Your task to perform on an android device: delete a single message in the gmail app Image 0: 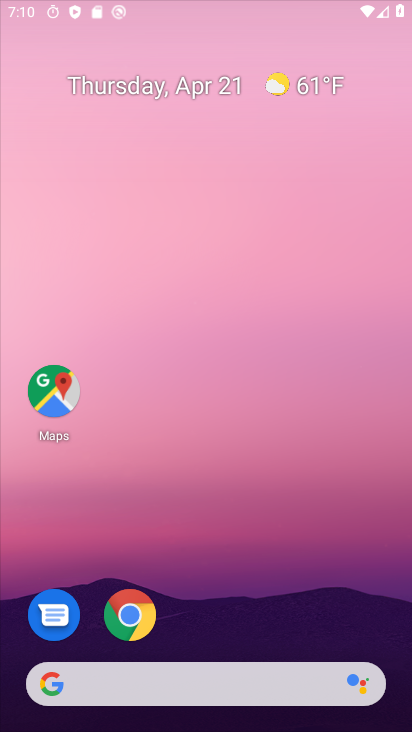
Step 0: drag from (174, 567) to (168, 308)
Your task to perform on an android device: delete a single message in the gmail app Image 1: 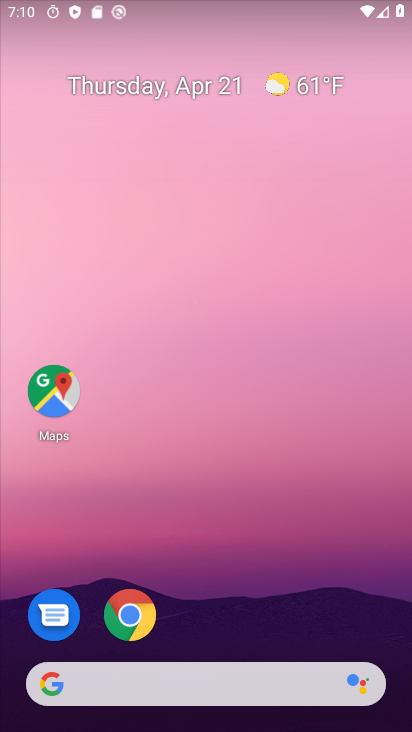
Step 1: drag from (204, 634) to (313, 182)
Your task to perform on an android device: delete a single message in the gmail app Image 2: 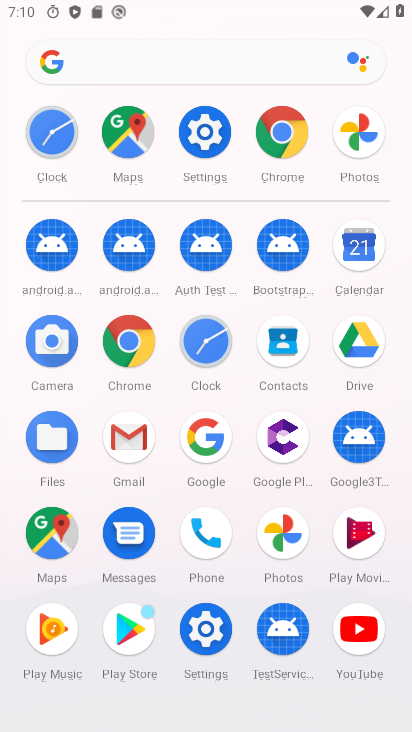
Step 2: click (123, 442)
Your task to perform on an android device: delete a single message in the gmail app Image 3: 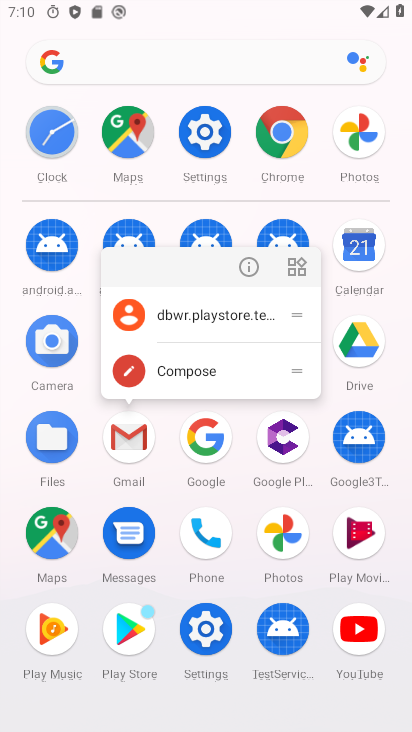
Step 3: click (256, 260)
Your task to perform on an android device: delete a single message in the gmail app Image 4: 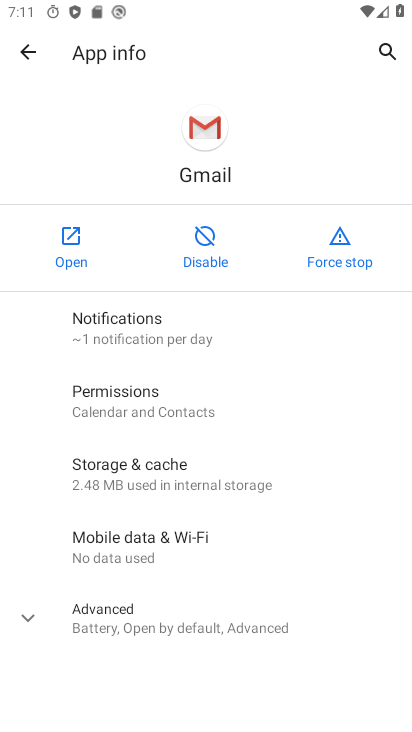
Step 4: click (73, 243)
Your task to perform on an android device: delete a single message in the gmail app Image 5: 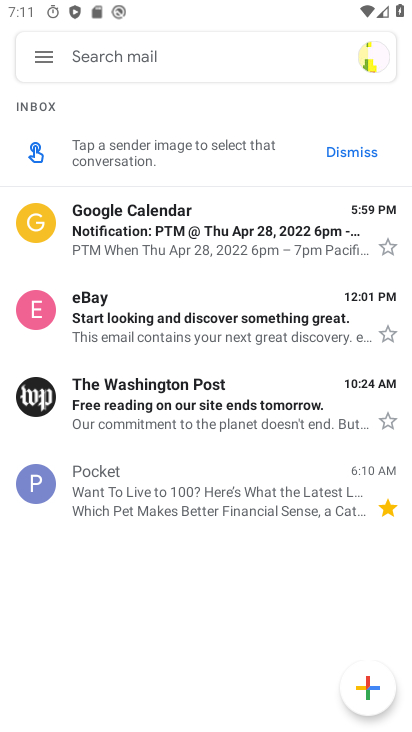
Step 5: click (42, 68)
Your task to perform on an android device: delete a single message in the gmail app Image 6: 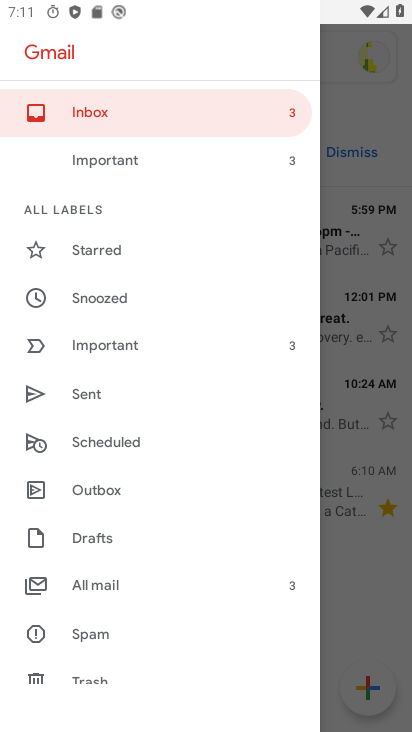
Step 6: drag from (119, 609) to (123, 232)
Your task to perform on an android device: delete a single message in the gmail app Image 7: 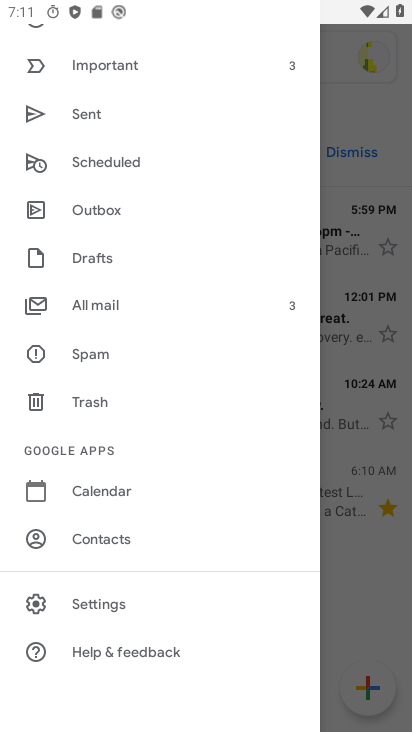
Step 7: click (112, 591)
Your task to perform on an android device: delete a single message in the gmail app Image 8: 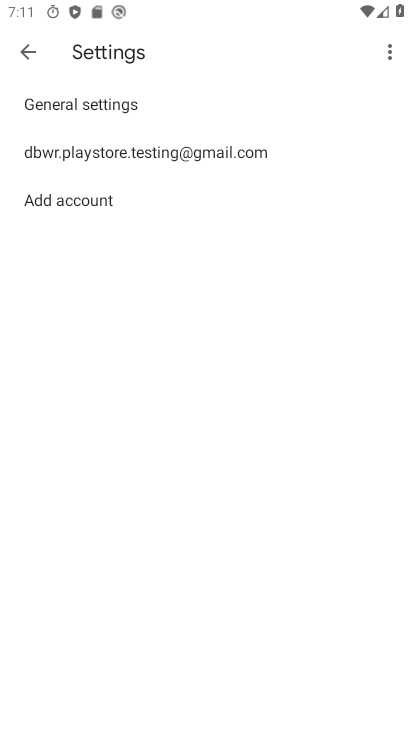
Step 8: click (25, 58)
Your task to perform on an android device: delete a single message in the gmail app Image 9: 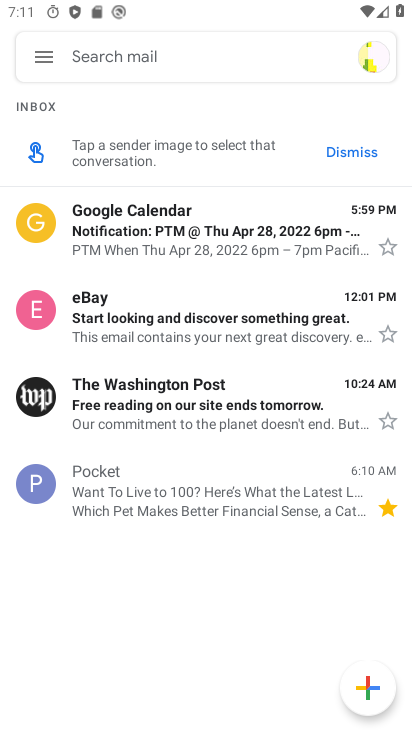
Step 9: click (41, 222)
Your task to perform on an android device: delete a single message in the gmail app Image 10: 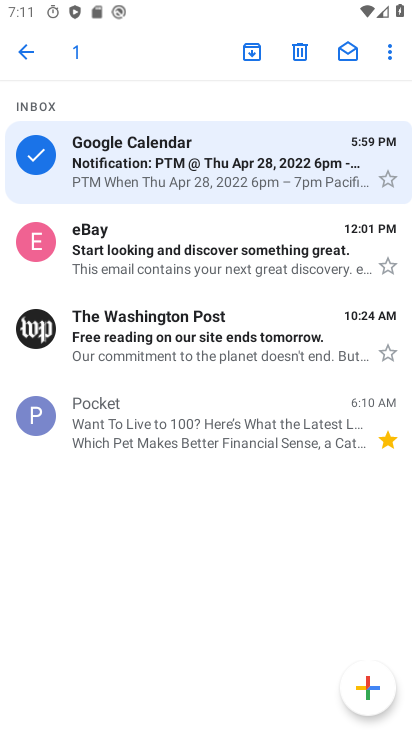
Step 10: click (301, 42)
Your task to perform on an android device: delete a single message in the gmail app Image 11: 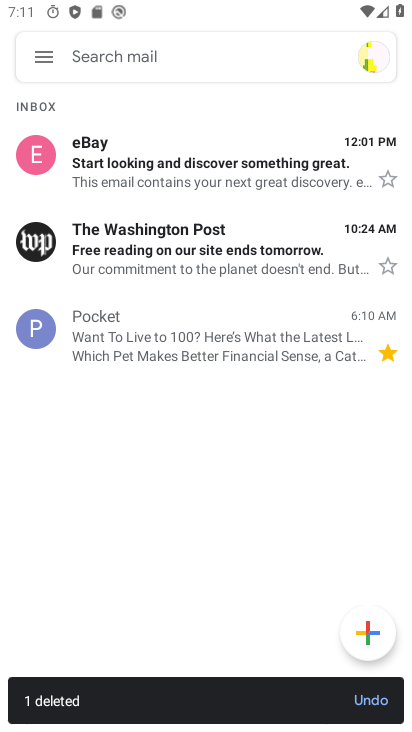
Step 11: task complete